Your task to perform on an android device: turn off data saver in the chrome app Image 0: 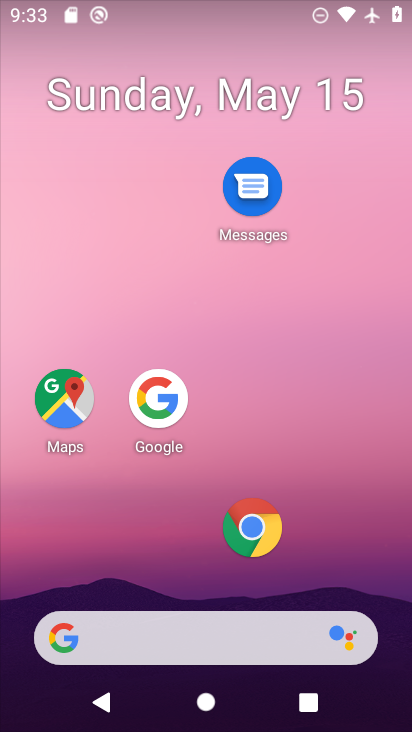
Step 0: click (252, 531)
Your task to perform on an android device: turn off data saver in the chrome app Image 1: 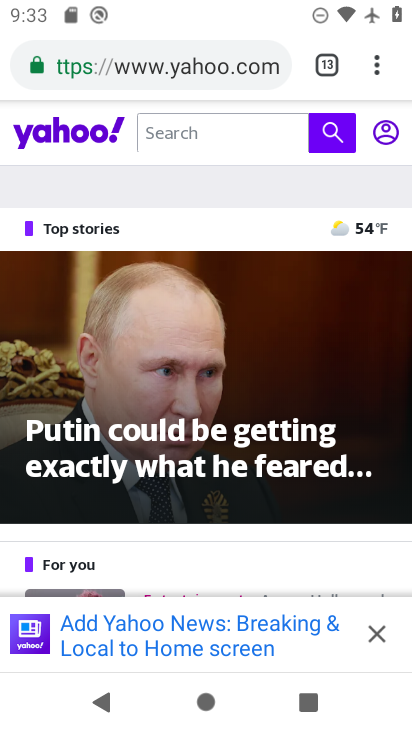
Step 1: drag from (373, 70) to (212, 585)
Your task to perform on an android device: turn off data saver in the chrome app Image 2: 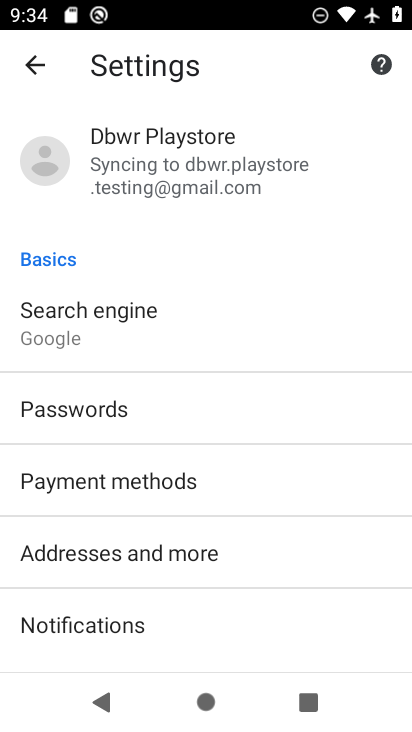
Step 2: drag from (185, 638) to (322, 171)
Your task to perform on an android device: turn off data saver in the chrome app Image 3: 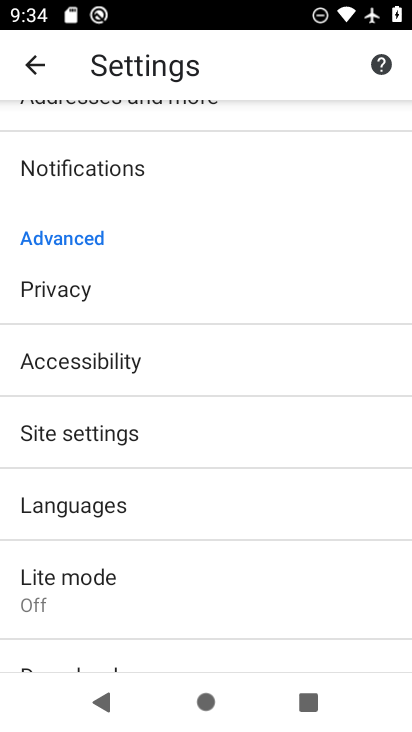
Step 3: click (105, 584)
Your task to perform on an android device: turn off data saver in the chrome app Image 4: 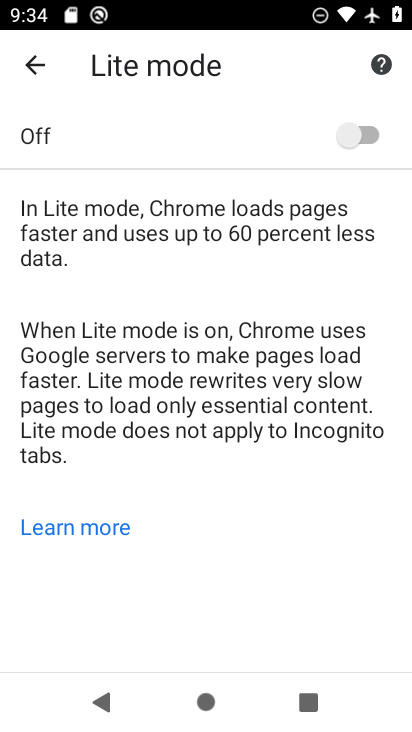
Step 4: task complete